Your task to perform on an android device: Go to Amazon Image 0: 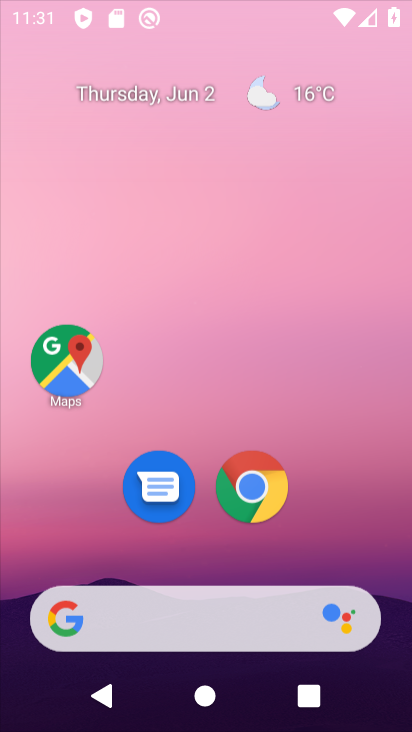
Step 0: press home button
Your task to perform on an android device: Go to Amazon Image 1: 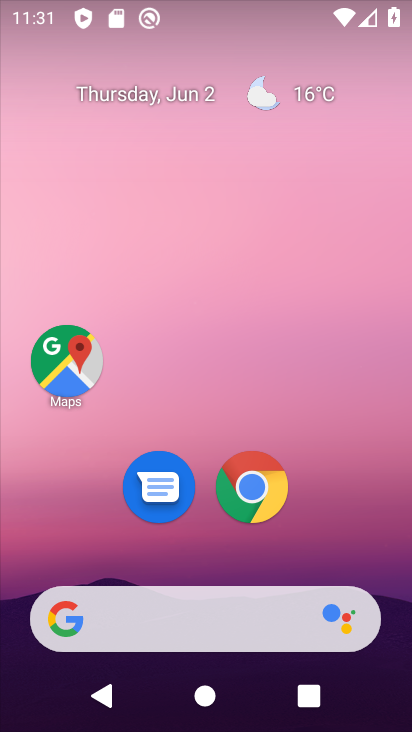
Step 1: click (61, 630)
Your task to perform on an android device: Go to Amazon Image 2: 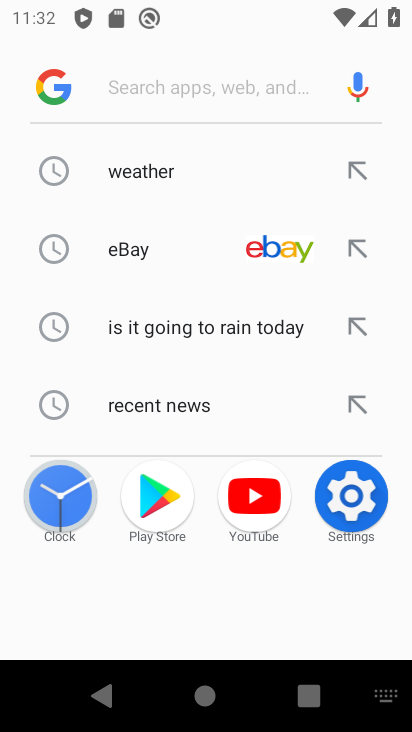
Step 2: type "Amazon"
Your task to perform on an android device: Go to Amazon Image 3: 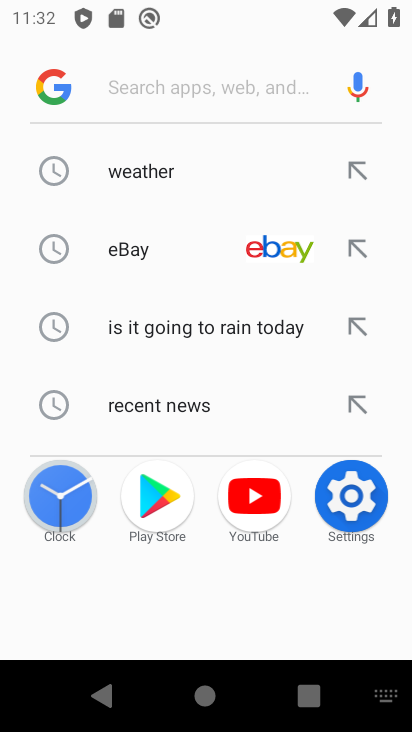
Step 3: click (203, 78)
Your task to perform on an android device: Go to Amazon Image 4: 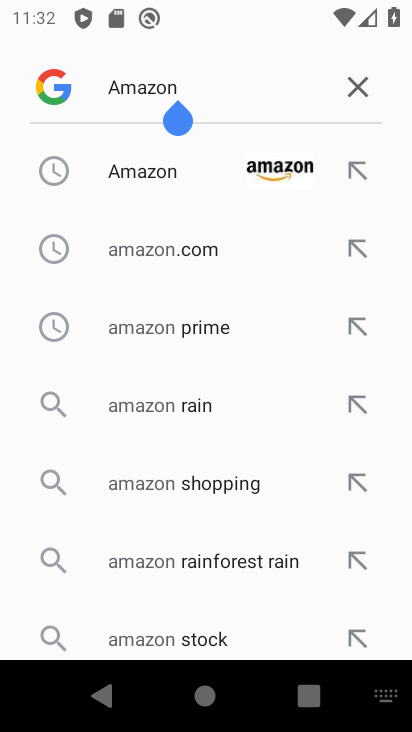
Step 4: click (138, 171)
Your task to perform on an android device: Go to Amazon Image 5: 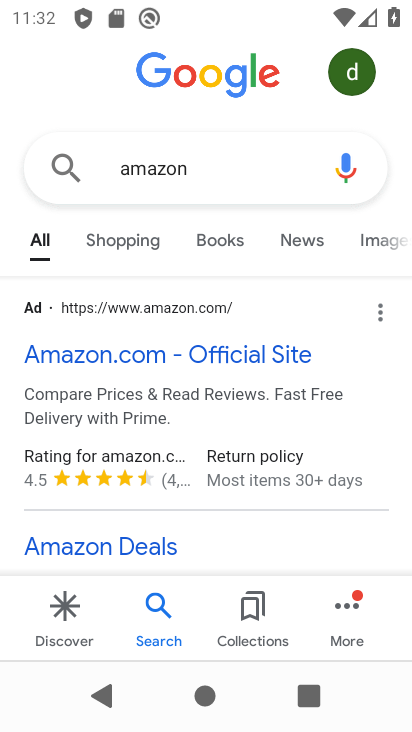
Step 5: click (144, 359)
Your task to perform on an android device: Go to Amazon Image 6: 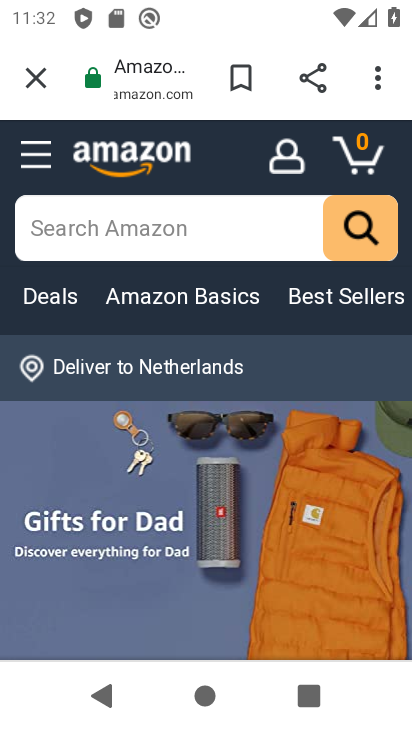
Step 6: task complete